Your task to perform on an android device: Open Google Image 0: 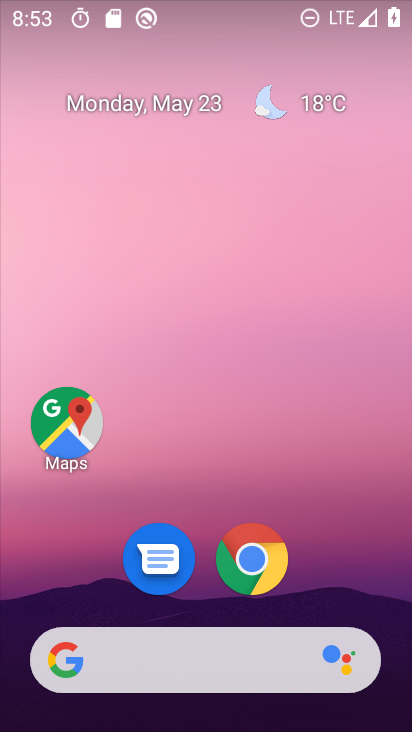
Step 0: drag from (388, 629) to (262, 80)
Your task to perform on an android device: Open Google Image 1: 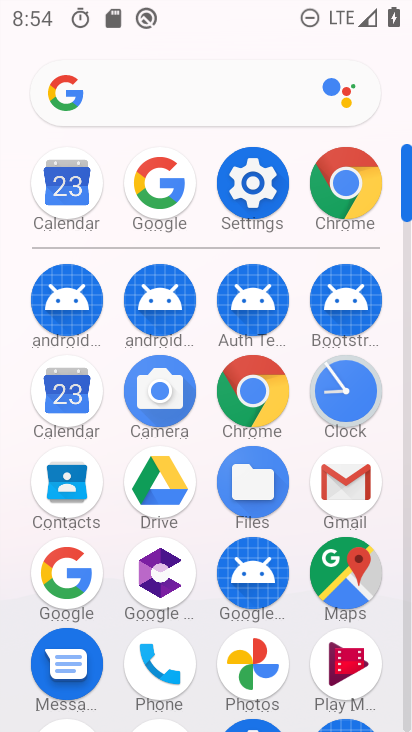
Step 1: click (76, 573)
Your task to perform on an android device: Open Google Image 2: 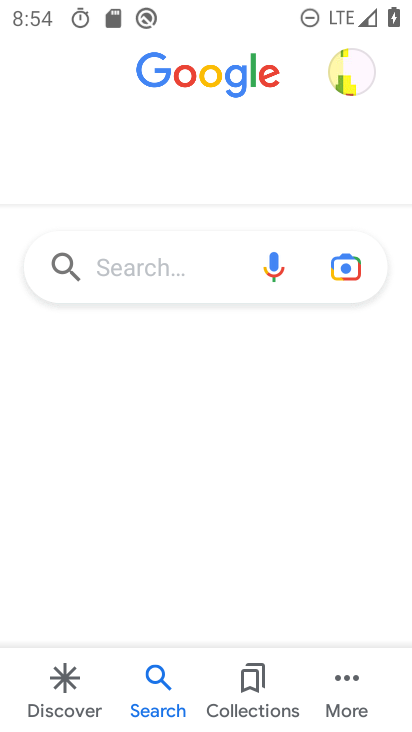
Step 2: task complete